Your task to perform on an android device: Open Google Maps Image 0: 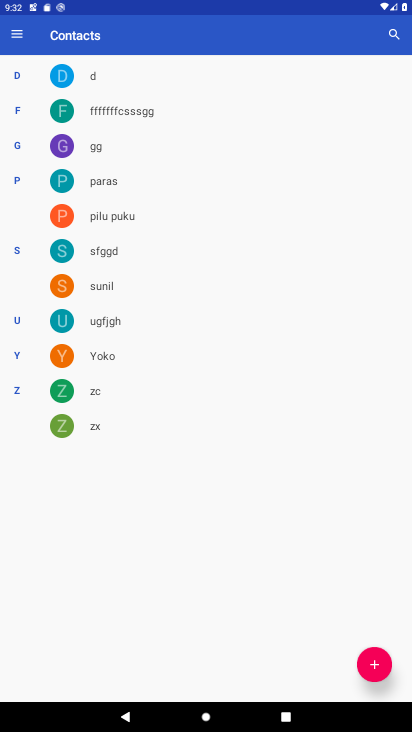
Step 0: press home button
Your task to perform on an android device: Open Google Maps Image 1: 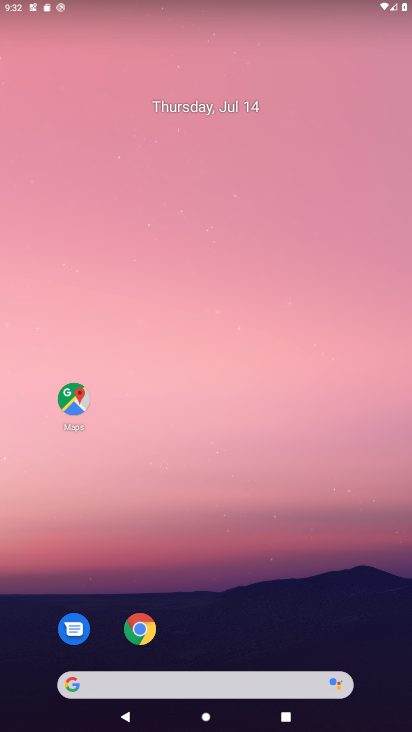
Step 1: drag from (246, 598) to (229, 38)
Your task to perform on an android device: Open Google Maps Image 2: 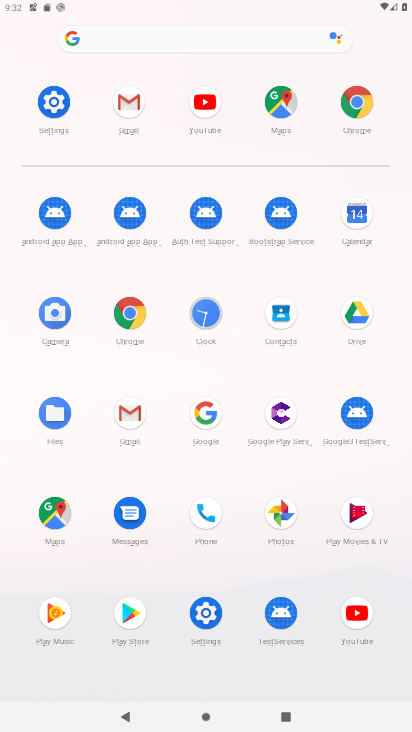
Step 2: click (56, 499)
Your task to perform on an android device: Open Google Maps Image 3: 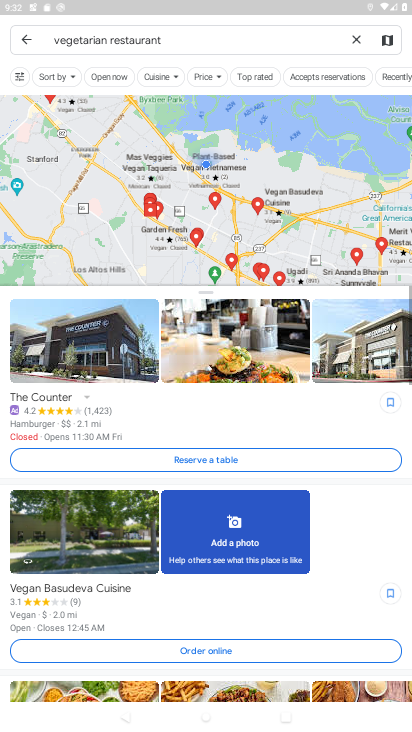
Step 3: click (20, 38)
Your task to perform on an android device: Open Google Maps Image 4: 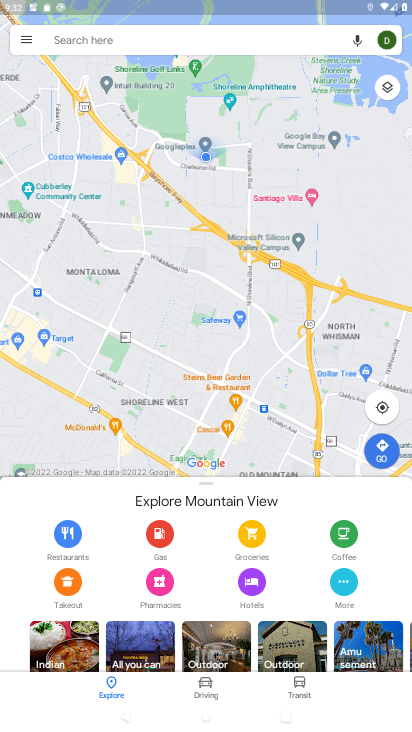
Step 4: task complete